Your task to perform on an android device: change timer sound Image 0: 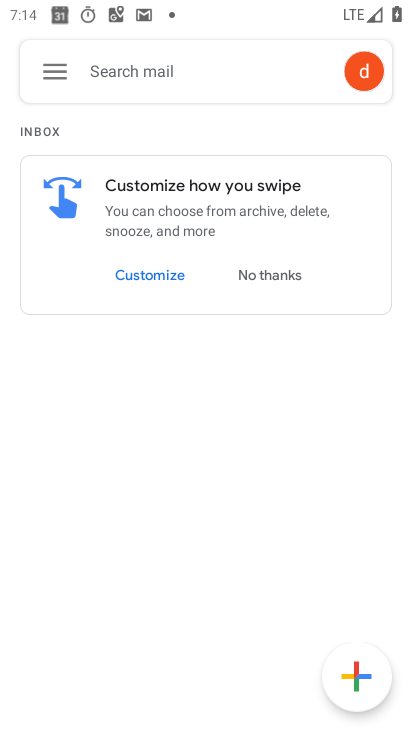
Step 0: press home button
Your task to perform on an android device: change timer sound Image 1: 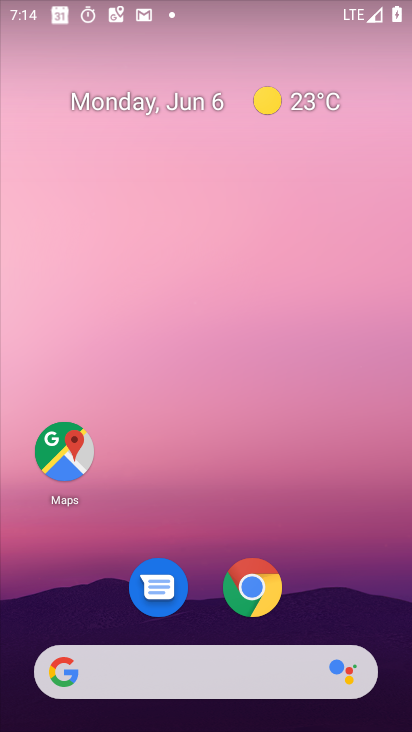
Step 1: drag from (389, 672) to (241, 135)
Your task to perform on an android device: change timer sound Image 2: 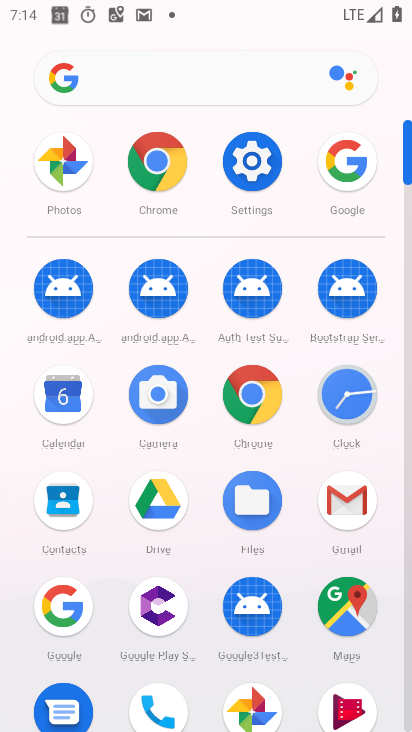
Step 2: click (339, 395)
Your task to perform on an android device: change timer sound Image 3: 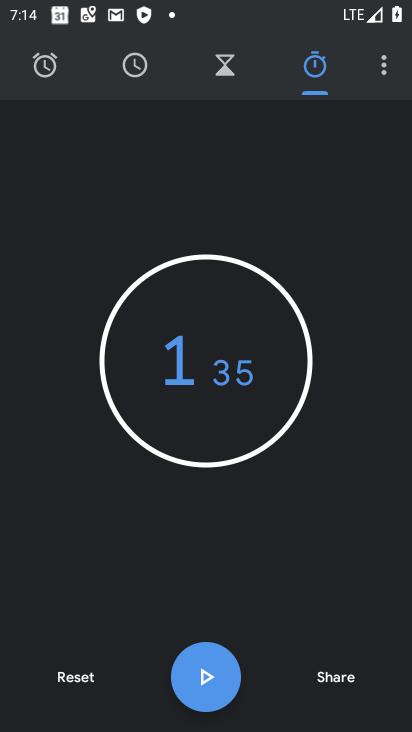
Step 3: click (378, 72)
Your task to perform on an android device: change timer sound Image 4: 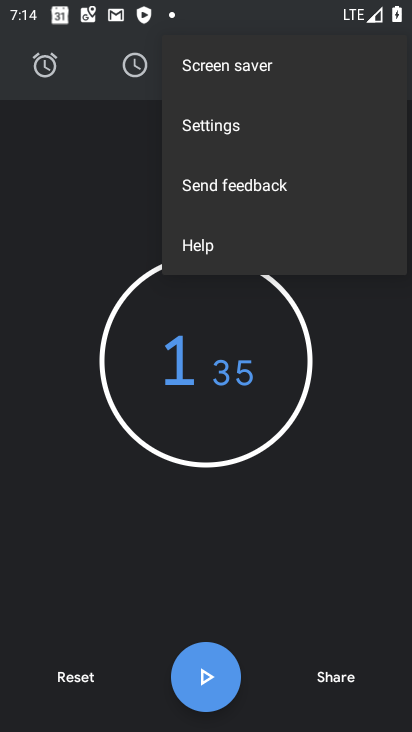
Step 4: click (275, 125)
Your task to perform on an android device: change timer sound Image 5: 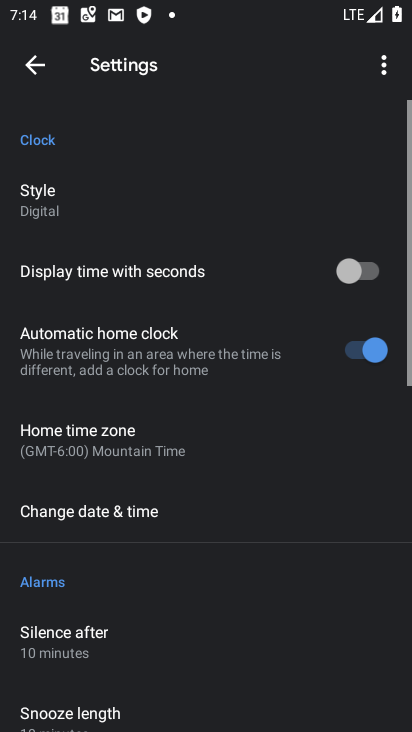
Step 5: drag from (154, 685) to (269, 171)
Your task to perform on an android device: change timer sound Image 6: 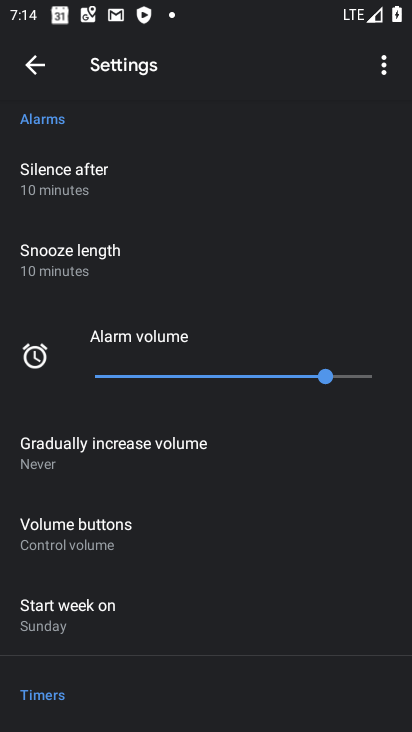
Step 6: drag from (151, 609) to (173, 152)
Your task to perform on an android device: change timer sound Image 7: 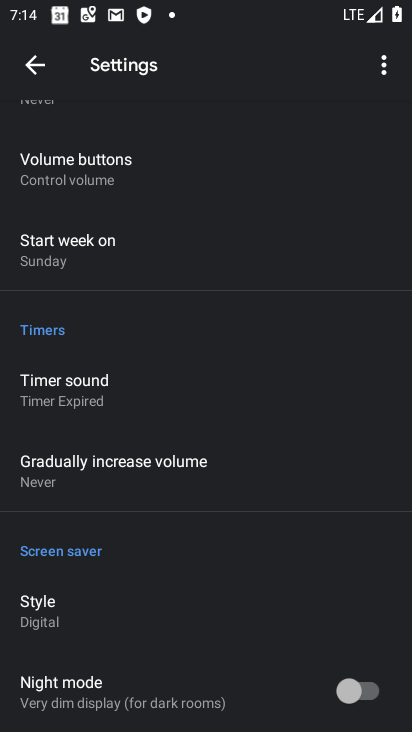
Step 7: click (152, 386)
Your task to perform on an android device: change timer sound Image 8: 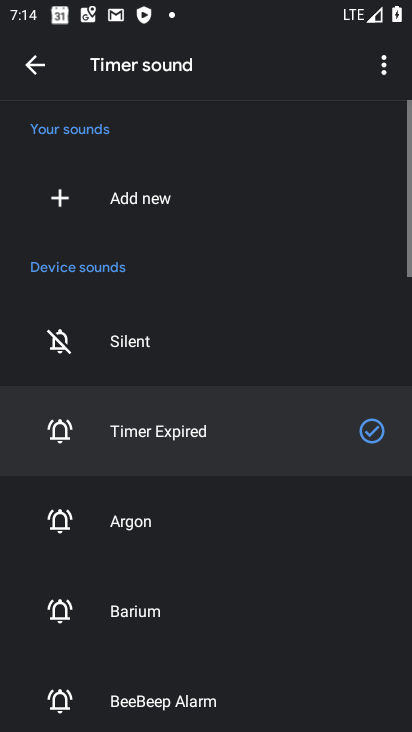
Step 8: click (208, 615)
Your task to perform on an android device: change timer sound Image 9: 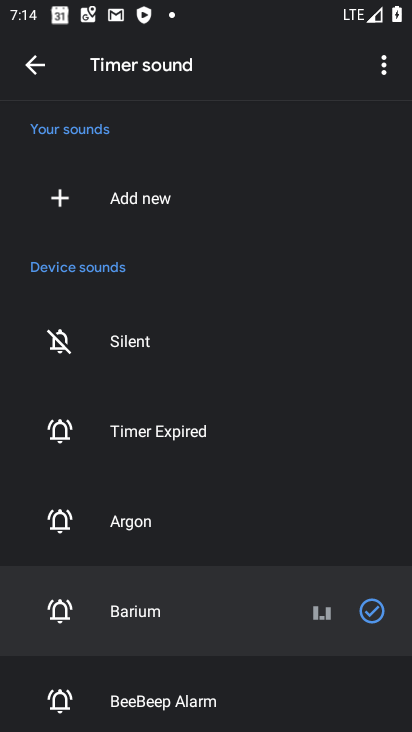
Step 9: task complete